Your task to perform on an android device: Go to Yahoo.com Image 0: 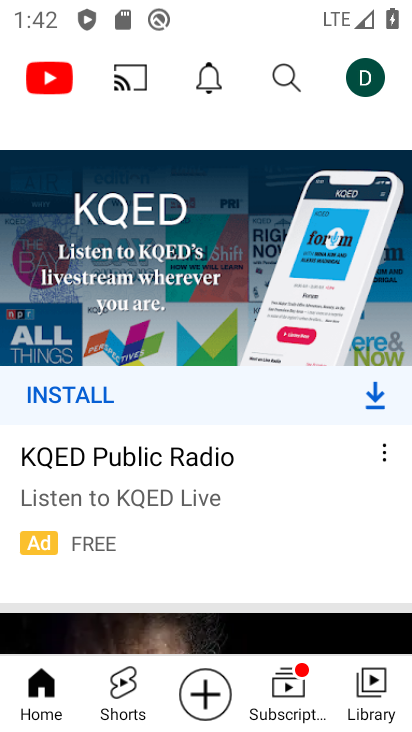
Step 0: press home button
Your task to perform on an android device: Go to Yahoo.com Image 1: 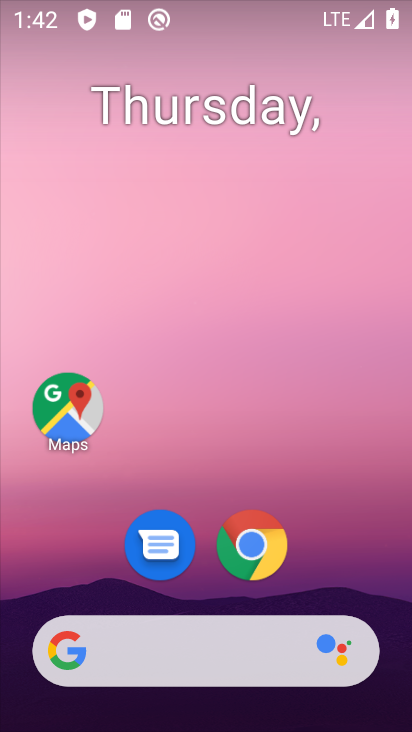
Step 1: click (139, 652)
Your task to perform on an android device: Go to Yahoo.com Image 2: 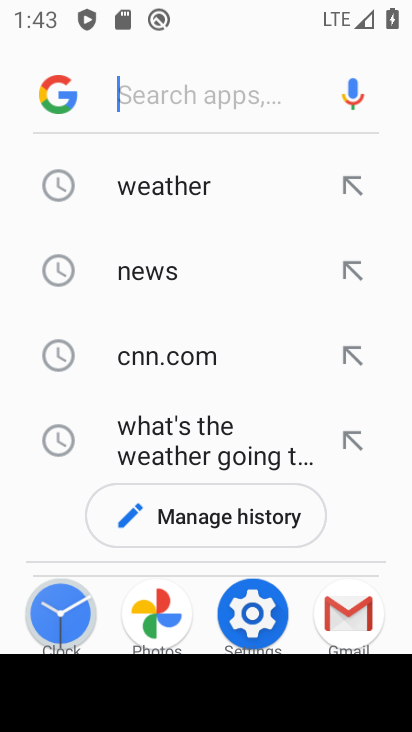
Step 2: type "yahoo.com"
Your task to perform on an android device: Go to Yahoo.com Image 3: 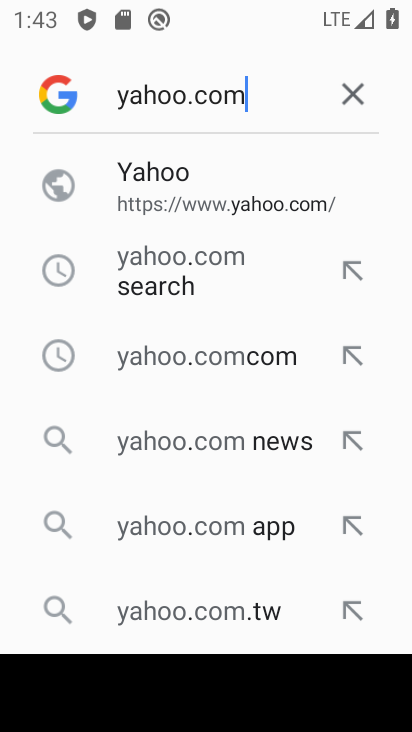
Step 3: click (123, 183)
Your task to perform on an android device: Go to Yahoo.com Image 4: 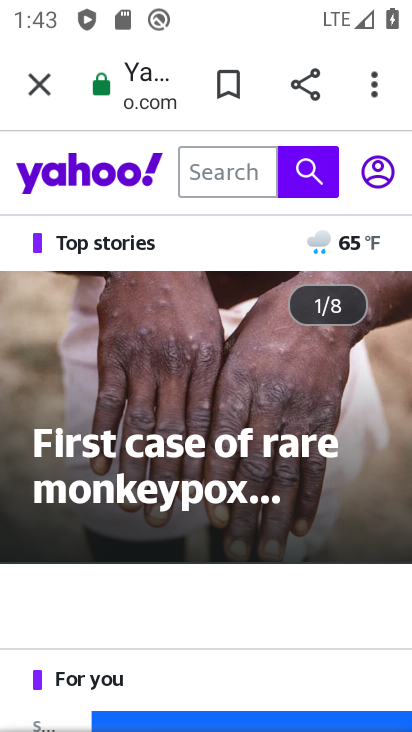
Step 4: task complete